Your task to perform on an android device: open app "Skype" Image 0: 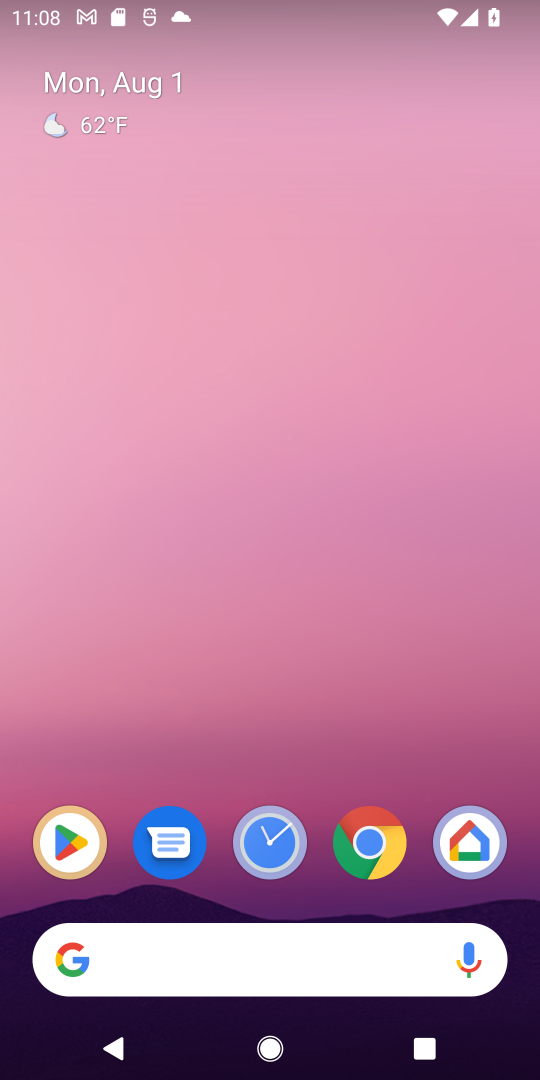
Step 0: click (77, 828)
Your task to perform on an android device: open app "Skype" Image 1: 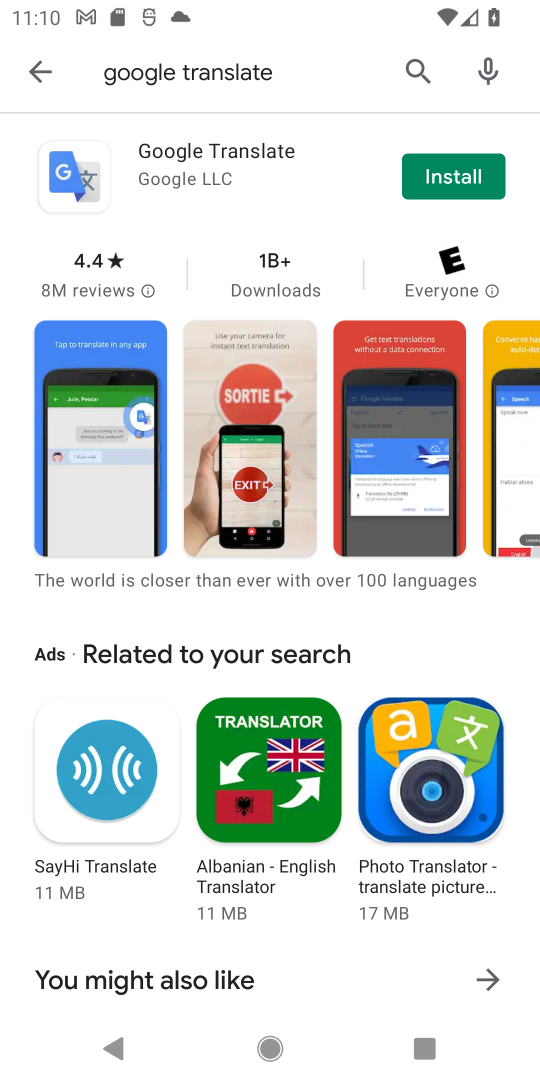
Step 1: click (415, 76)
Your task to perform on an android device: open app "Skype" Image 2: 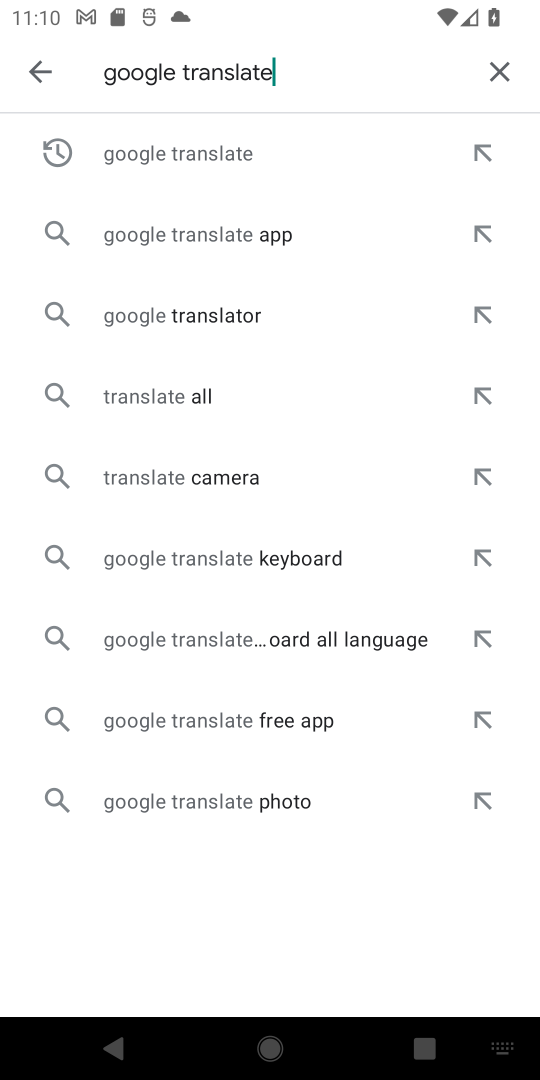
Step 2: click (490, 67)
Your task to perform on an android device: open app "Skype" Image 3: 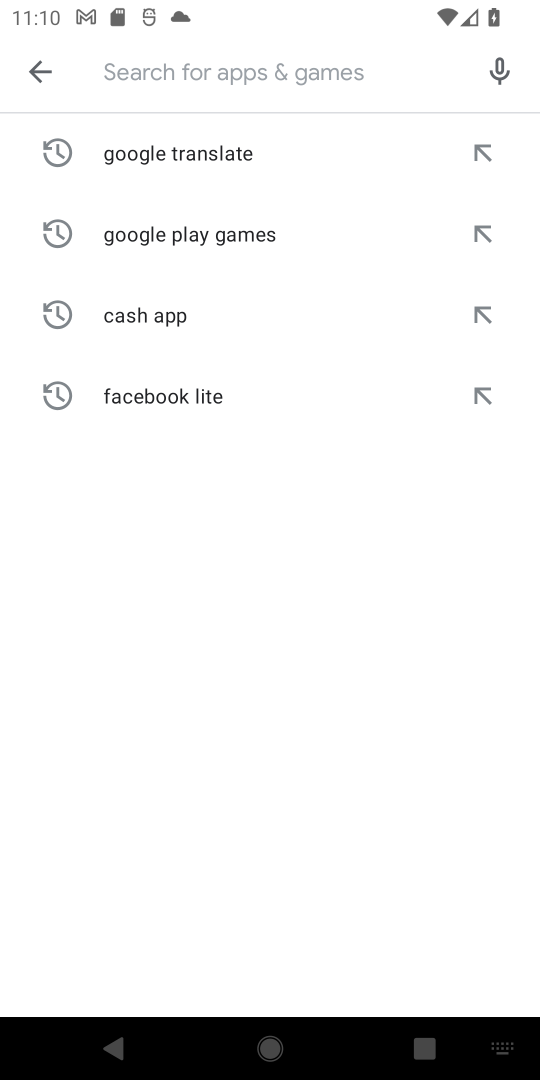
Step 3: click (260, 61)
Your task to perform on an android device: open app "Skype" Image 4: 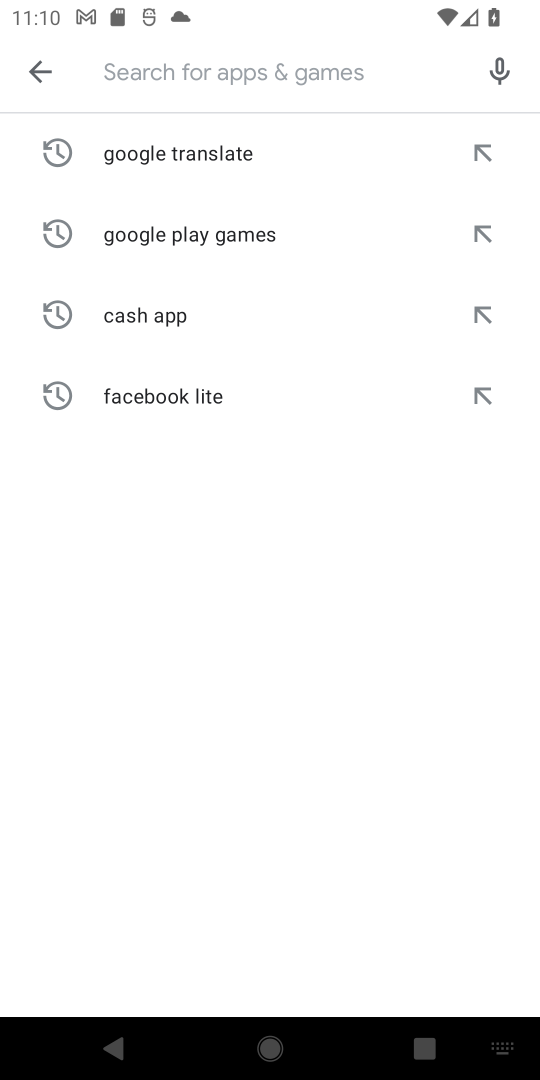
Step 4: type "Skype"
Your task to perform on an android device: open app "Skype" Image 5: 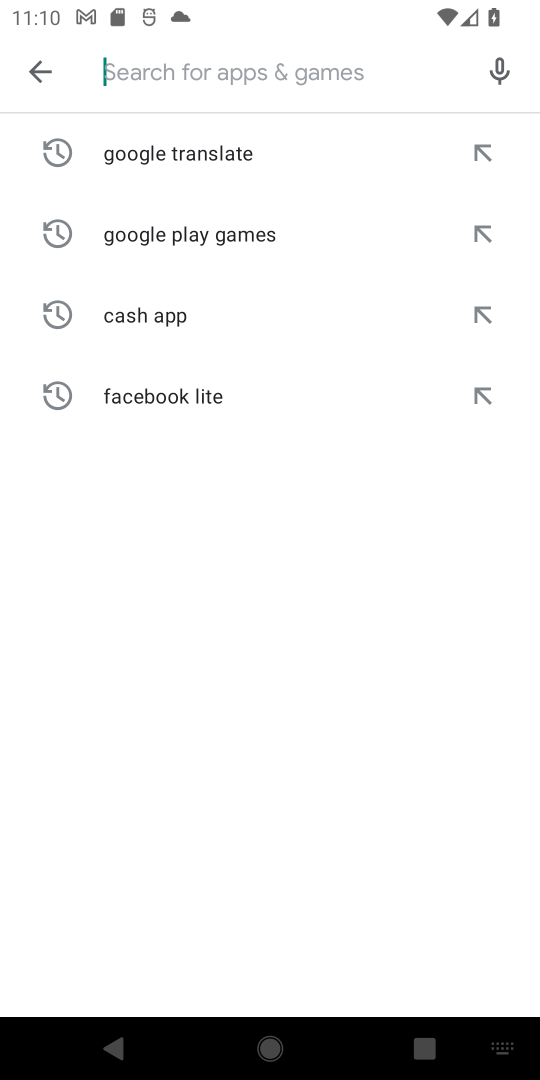
Step 5: click (269, 698)
Your task to perform on an android device: open app "Skype" Image 6: 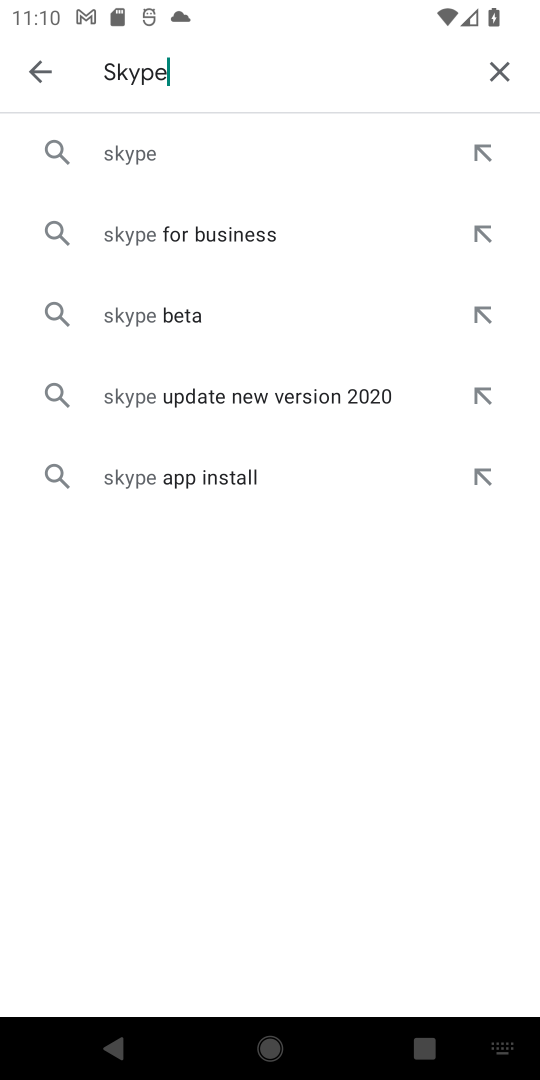
Step 6: click (166, 139)
Your task to perform on an android device: open app "Skype" Image 7: 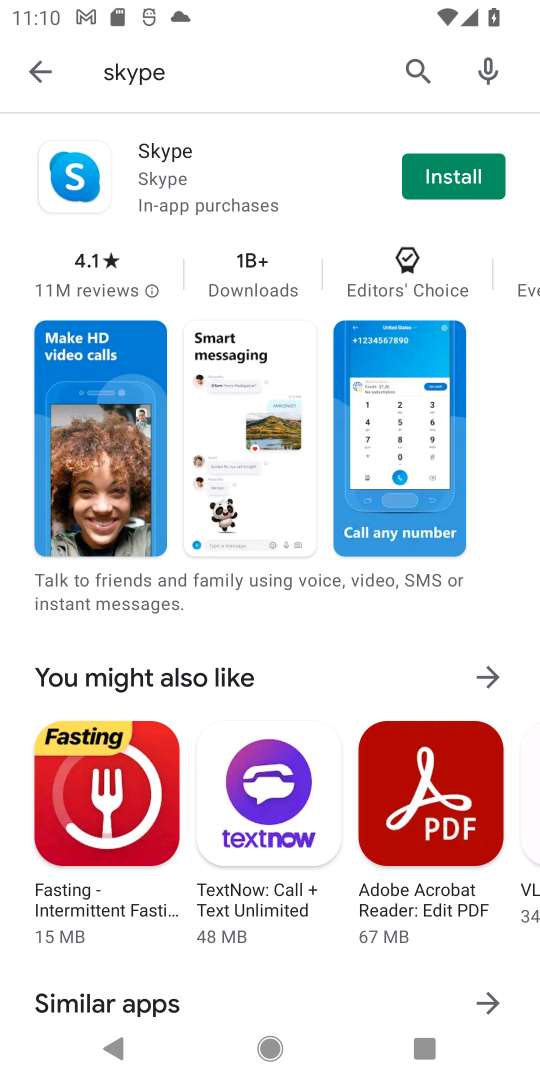
Step 7: task complete